Your task to perform on an android device: Turn off the flashlight Image 0: 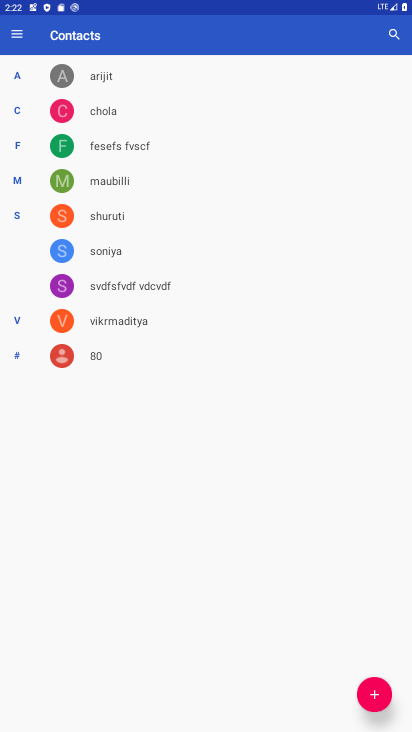
Step 0: press home button
Your task to perform on an android device: Turn off the flashlight Image 1: 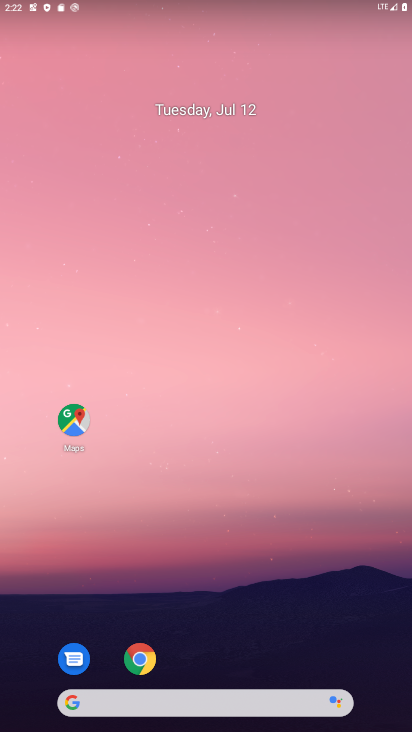
Step 1: drag from (233, 667) to (227, 141)
Your task to perform on an android device: Turn off the flashlight Image 2: 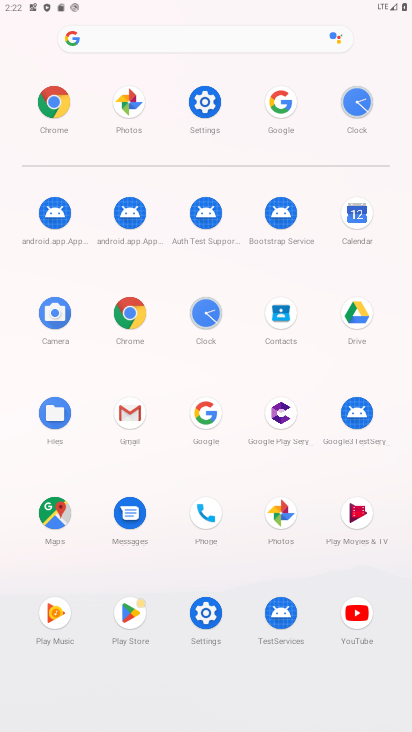
Step 2: click (205, 104)
Your task to perform on an android device: Turn off the flashlight Image 3: 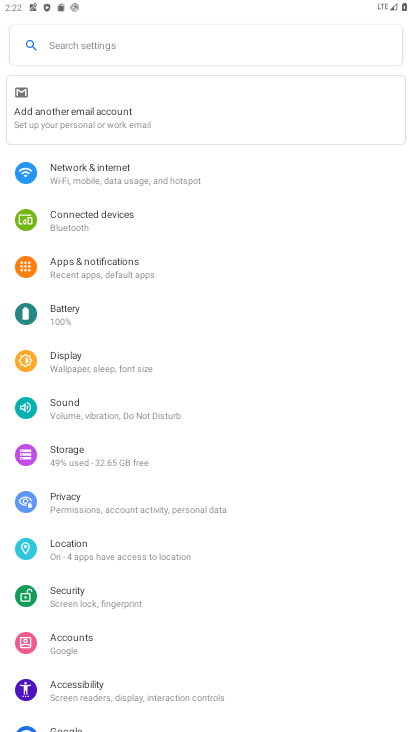
Step 3: task complete